Your task to perform on an android device: change timer sound Image 0: 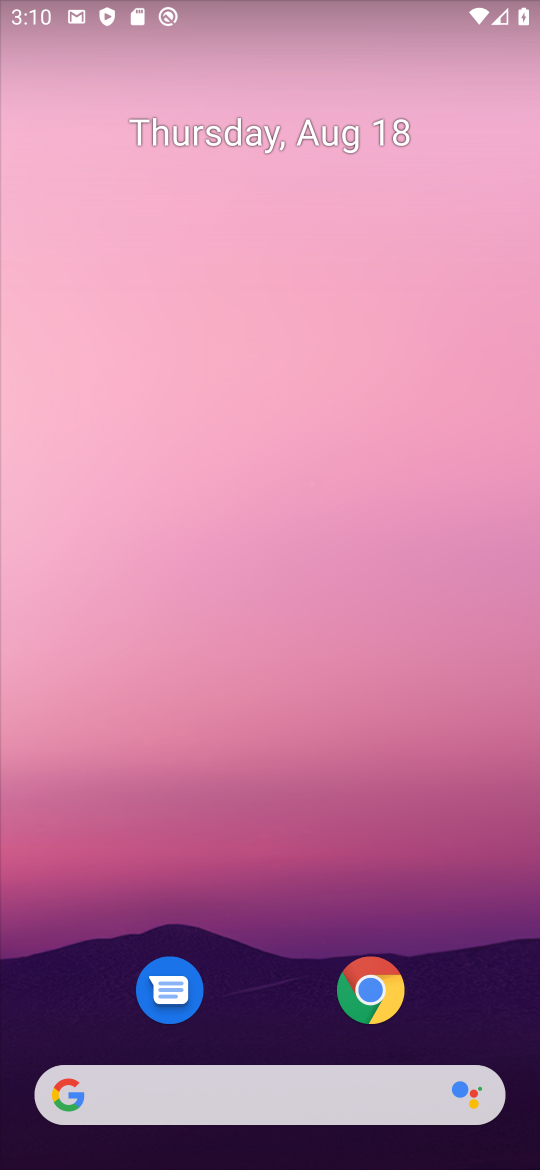
Step 0: drag from (409, 853) to (159, 12)
Your task to perform on an android device: change timer sound Image 1: 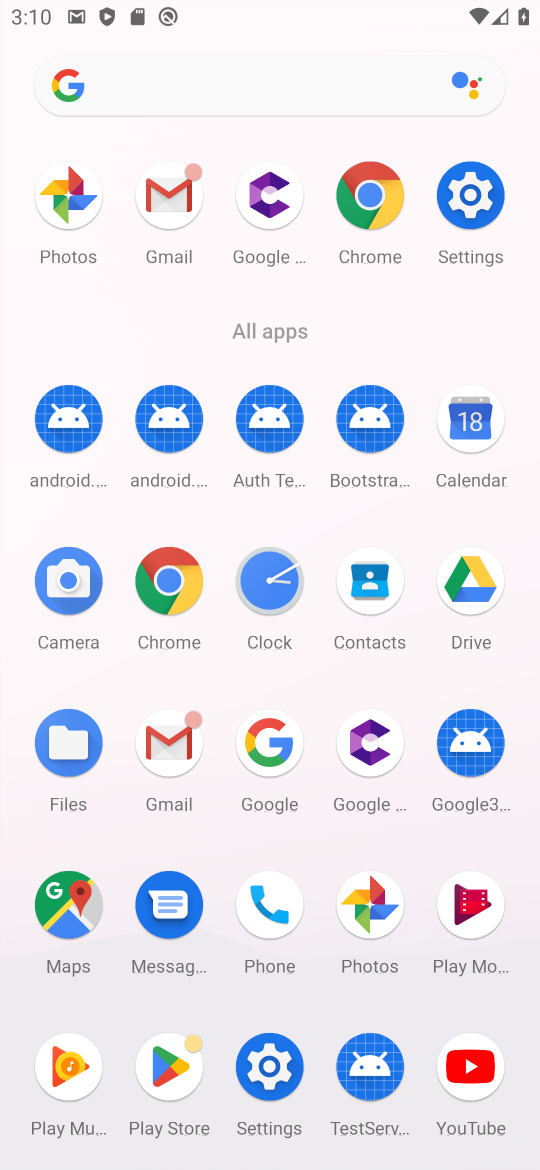
Step 1: click (271, 587)
Your task to perform on an android device: change timer sound Image 2: 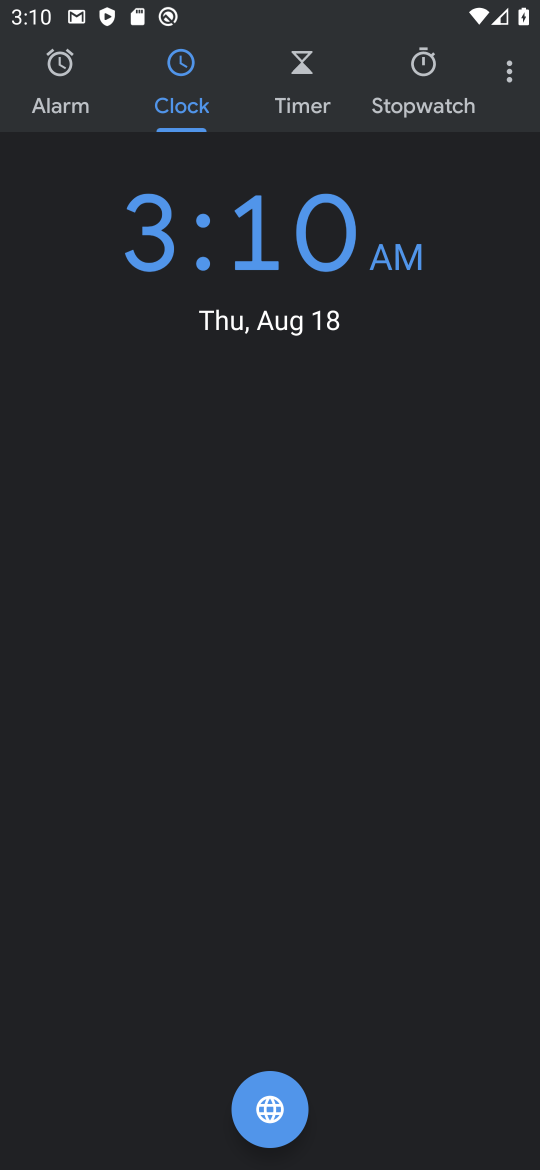
Step 2: click (513, 78)
Your task to perform on an android device: change timer sound Image 3: 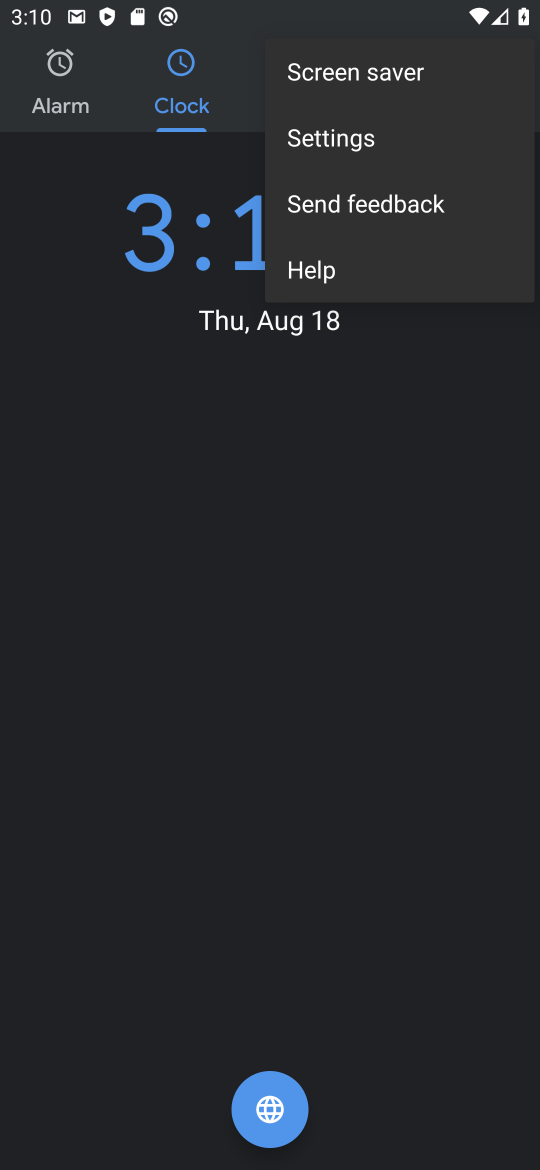
Step 3: click (357, 157)
Your task to perform on an android device: change timer sound Image 4: 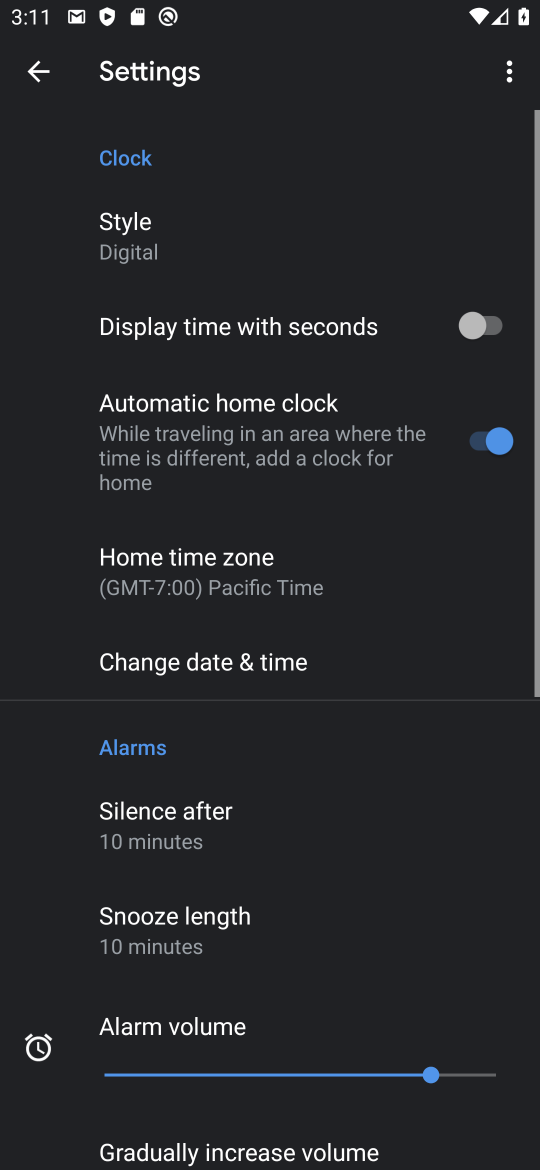
Step 4: drag from (362, 747) to (337, 93)
Your task to perform on an android device: change timer sound Image 5: 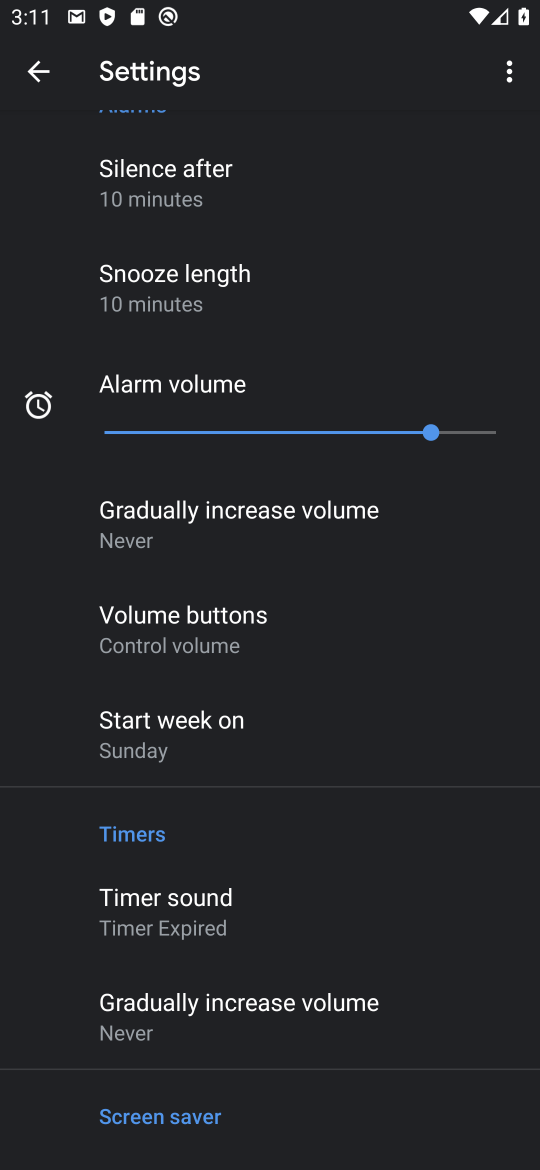
Step 5: click (170, 933)
Your task to perform on an android device: change timer sound Image 6: 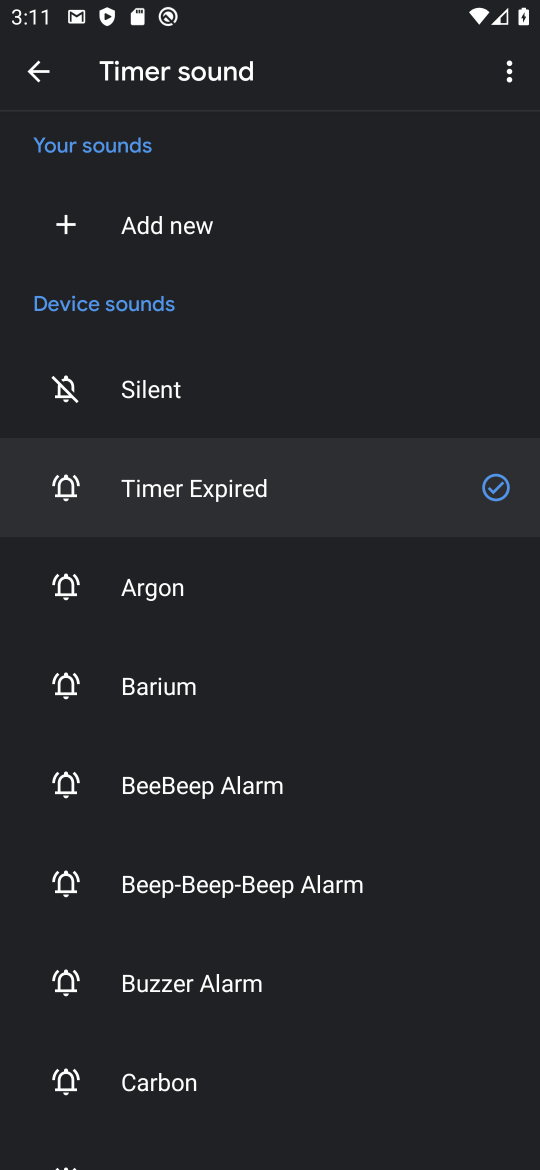
Step 6: click (148, 624)
Your task to perform on an android device: change timer sound Image 7: 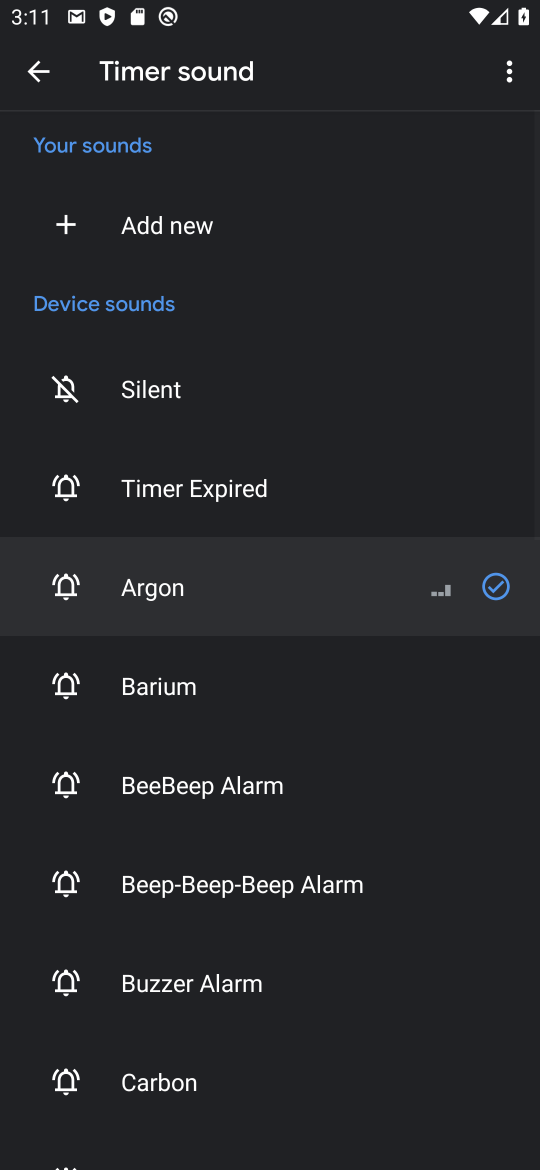
Step 7: task complete